Your task to perform on an android device: toggle javascript in the chrome app Image 0: 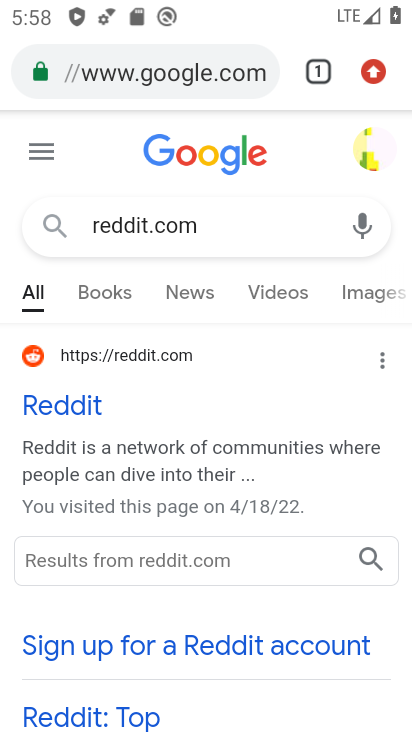
Step 0: click (371, 71)
Your task to perform on an android device: toggle javascript in the chrome app Image 1: 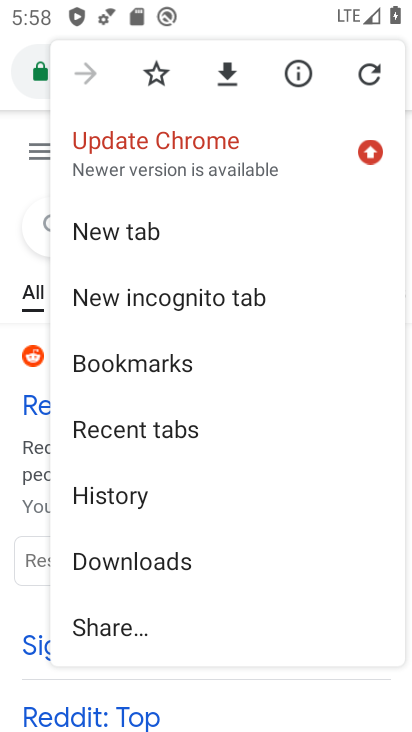
Step 1: drag from (181, 553) to (240, 175)
Your task to perform on an android device: toggle javascript in the chrome app Image 2: 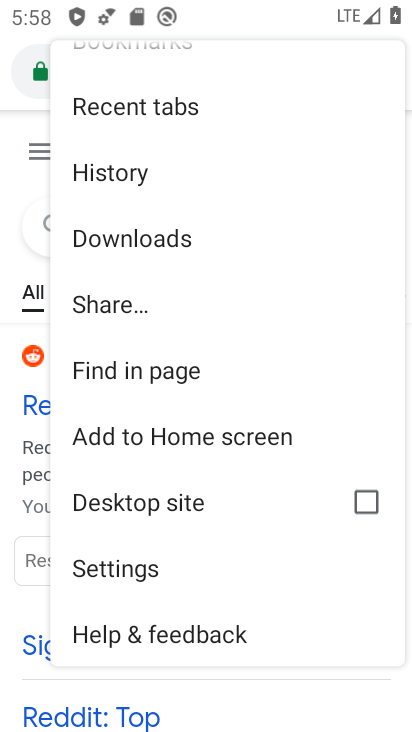
Step 2: click (146, 577)
Your task to perform on an android device: toggle javascript in the chrome app Image 3: 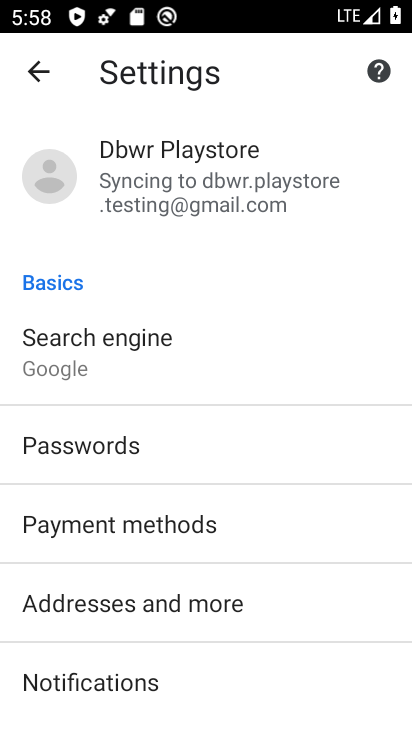
Step 3: drag from (178, 553) to (262, 240)
Your task to perform on an android device: toggle javascript in the chrome app Image 4: 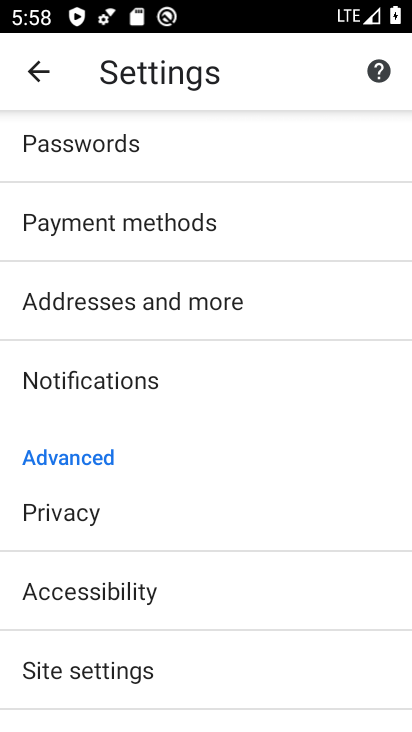
Step 4: drag from (113, 576) to (183, 346)
Your task to perform on an android device: toggle javascript in the chrome app Image 5: 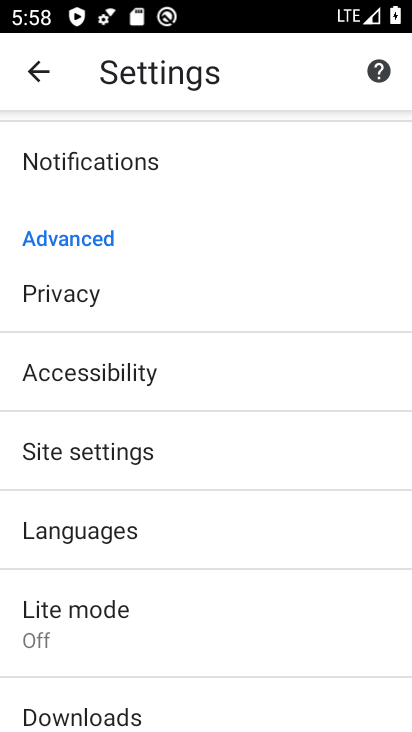
Step 5: click (108, 456)
Your task to perform on an android device: toggle javascript in the chrome app Image 6: 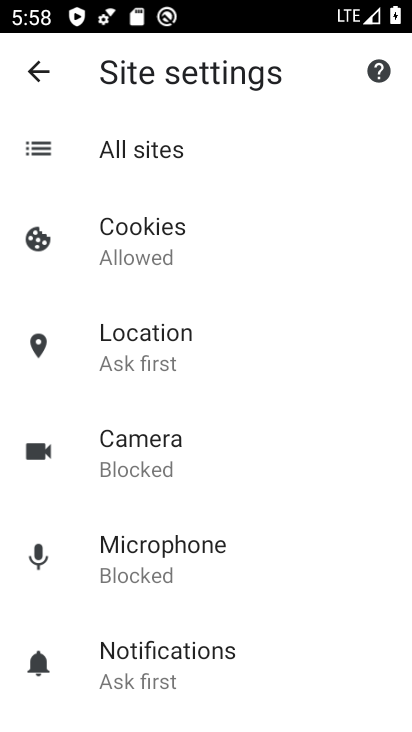
Step 6: drag from (147, 596) to (239, 264)
Your task to perform on an android device: toggle javascript in the chrome app Image 7: 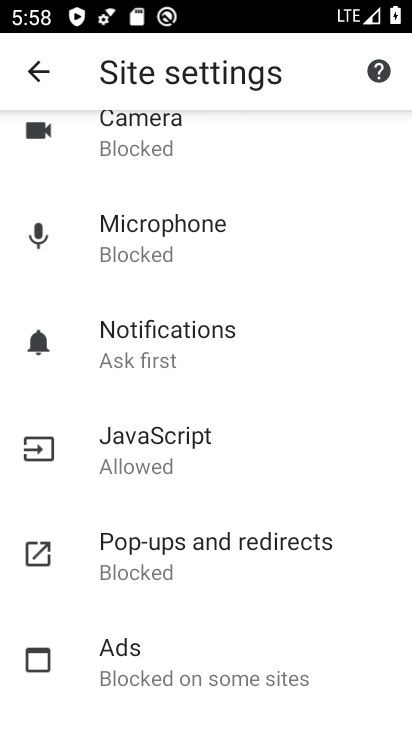
Step 7: click (158, 451)
Your task to perform on an android device: toggle javascript in the chrome app Image 8: 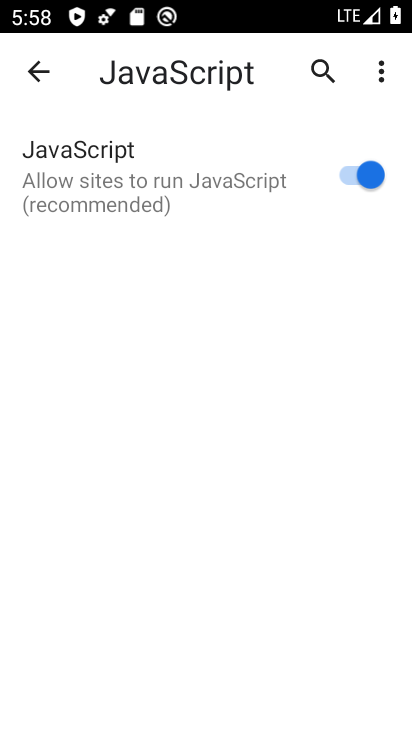
Step 8: click (355, 178)
Your task to perform on an android device: toggle javascript in the chrome app Image 9: 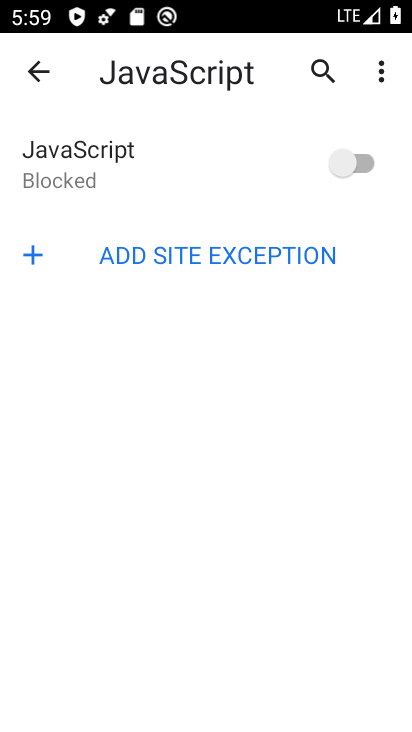
Step 9: task complete